Your task to perform on an android device: Show me popular games on the Play Store Image 0: 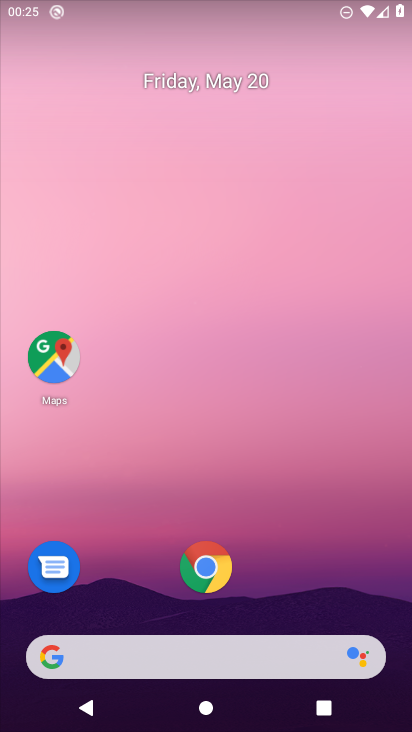
Step 0: drag from (246, 602) to (263, 21)
Your task to perform on an android device: Show me popular games on the Play Store Image 1: 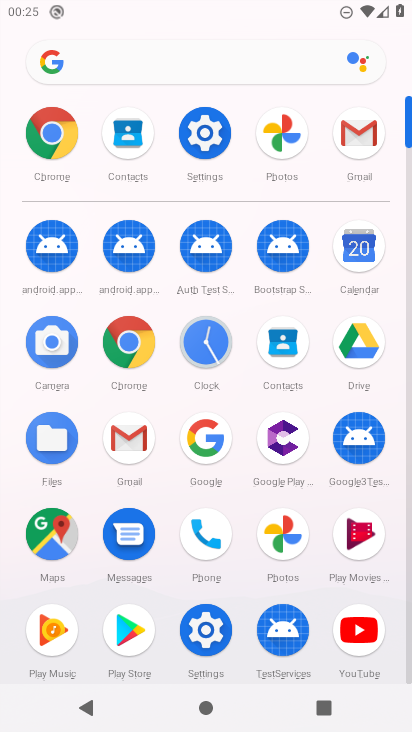
Step 1: click (130, 622)
Your task to perform on an android device: Show me popular games on the Play Store Image 2: 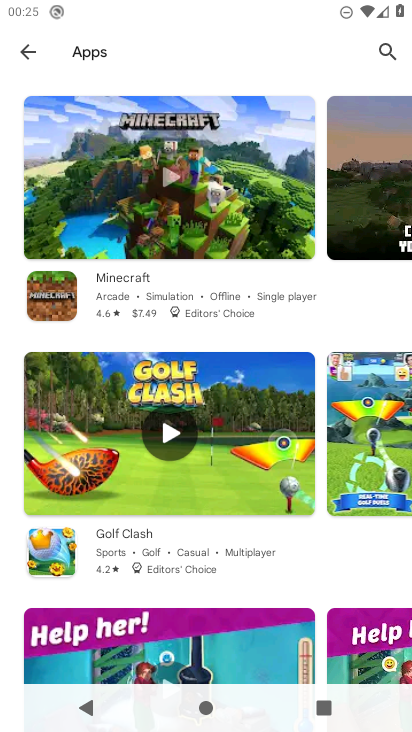
Step 2: click (22, 52)
Your task to perform on an android device: Show me popular games on the Play Store Image 3: 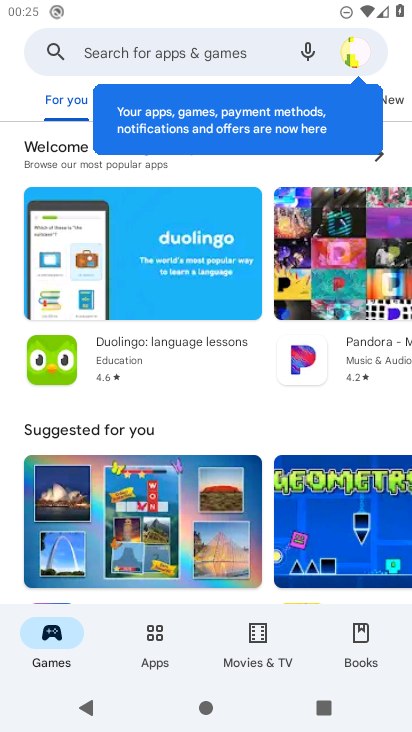
Step 3: drag from (268, 549) to (268, 134)
Your task to perform on an android device: Show me popular games on the Play Store Image 4: 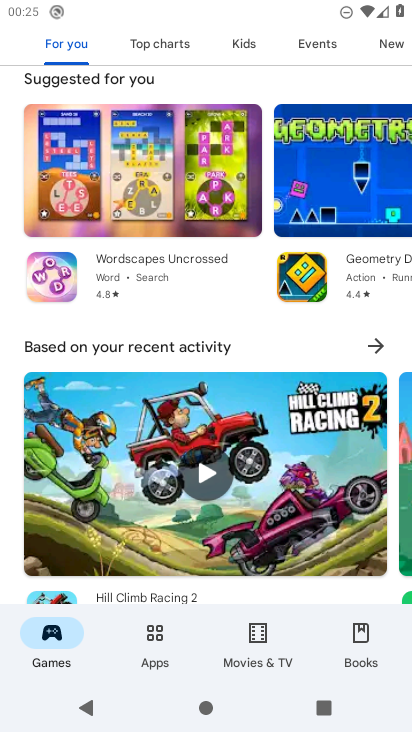
Step 4: drag from (232, 475) to (257, 121)
Your task to perform on an android device: Show me popular games on the Play Store Image 5: 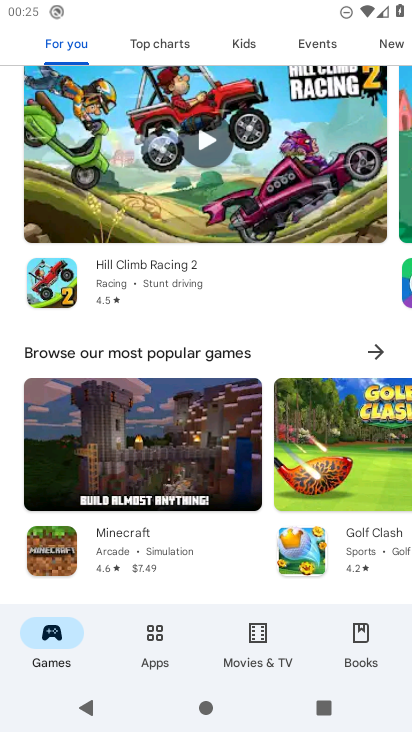
Step 5: click (375, 351)
Your task to perform on an android device: Show me popular games on the Play Store Image 6: 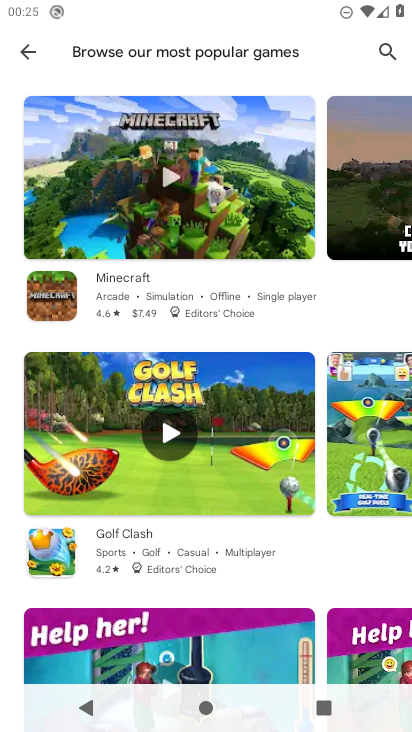
Step 6: task complete